Your task to perform on an android device: change text size in settings app Image 0: 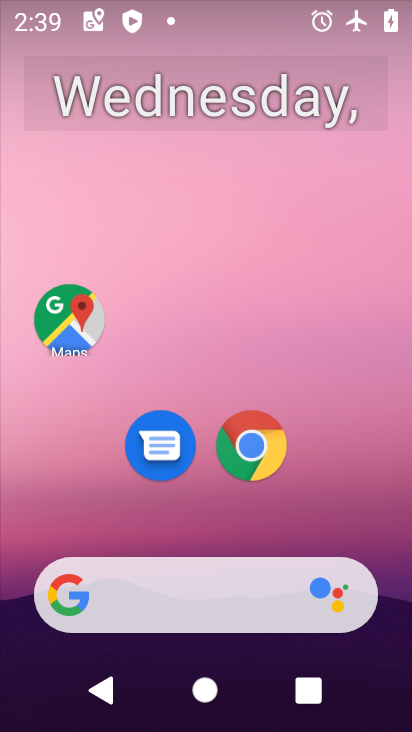
Step 0: drag from (202, 520) to (216, 212)
Your task to perform on an android device: change text size in settings app Image 1: 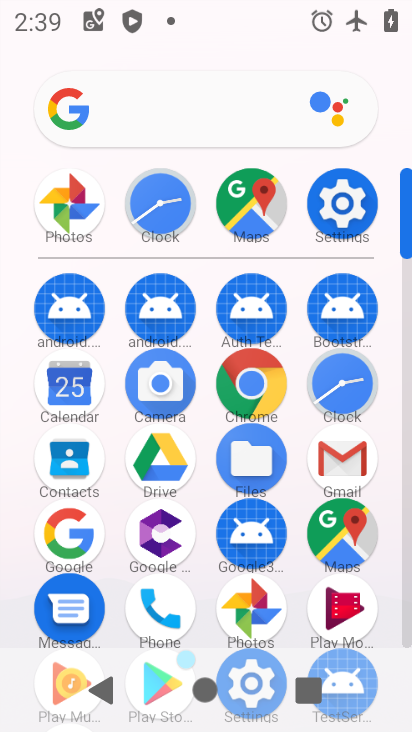
Step 1: click (325, 231)
Your task to perform on an android device: change text size in settings app Image 2: 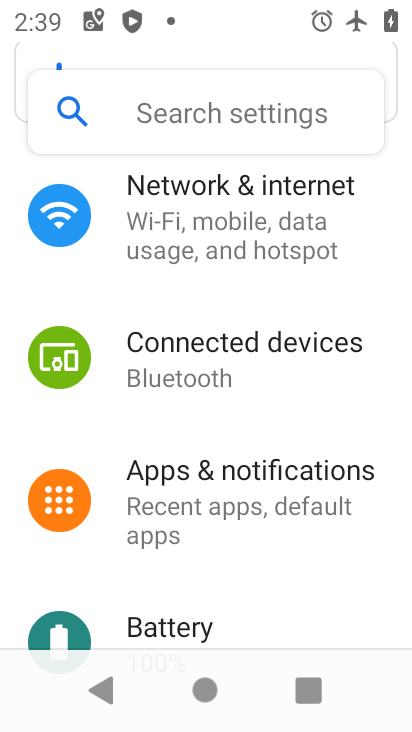
Step 2: drag from (186, 566) to (231, 266)
Your task to perform on an android device: change text size in settings app Image 3: 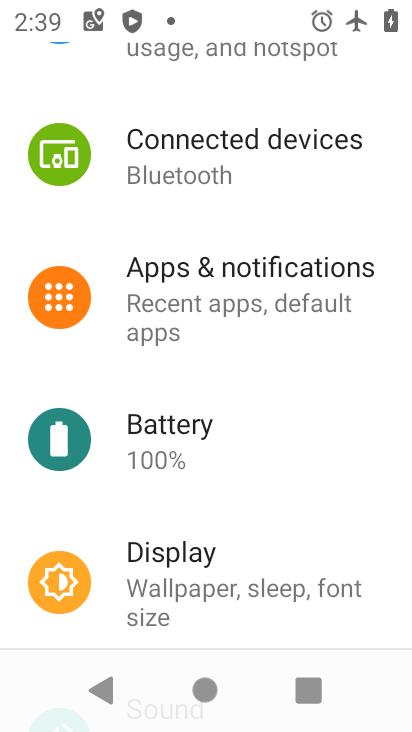
Step 3: click (203, 571)
Your task to perform on an android device: change text size in settings app Image 4: 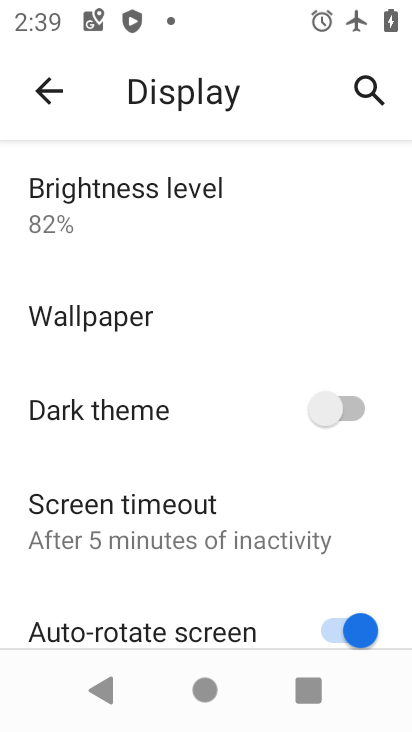
Step 4: drag from (174, 582) to (198, 285)
Your task to perform on an android device: change text size in settings app Image 5: 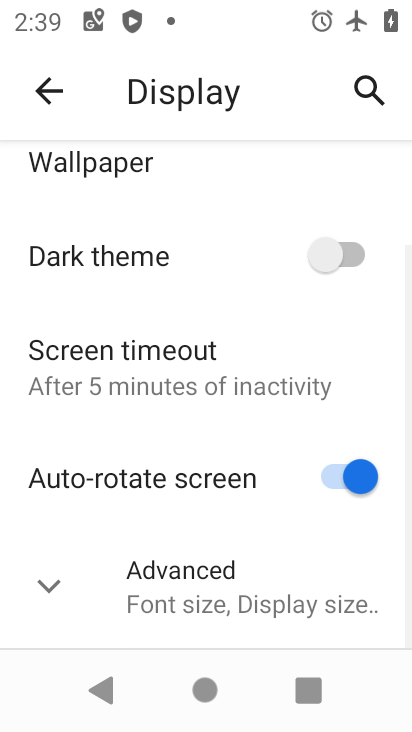
Step 5: click (164, 594)
Your task to perform on an android device: change text size in settings app Image 6: 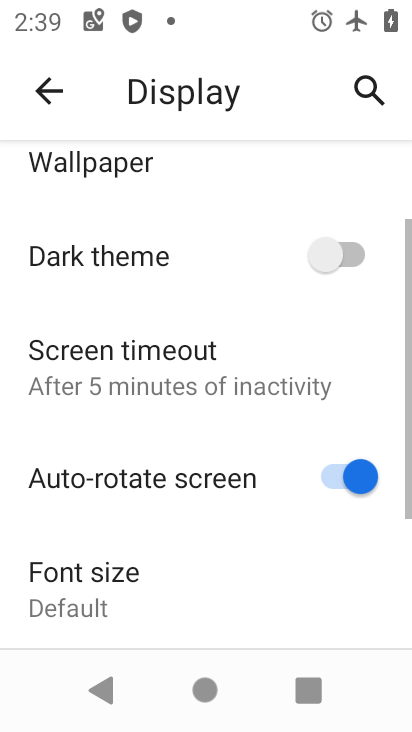
Step 6: drag from (164, 594) to (198, 396)
Your task to perform on an android device: change text size in settings app Image 7: 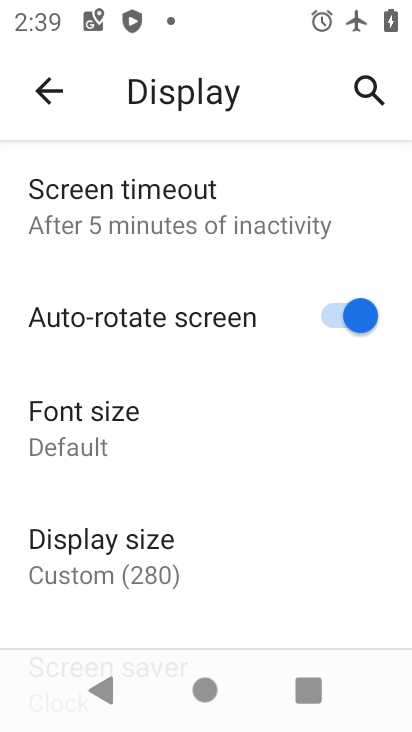
Step 7: click (161, 454)
Your task to perform on an android device: change text size in settings app Image 8: 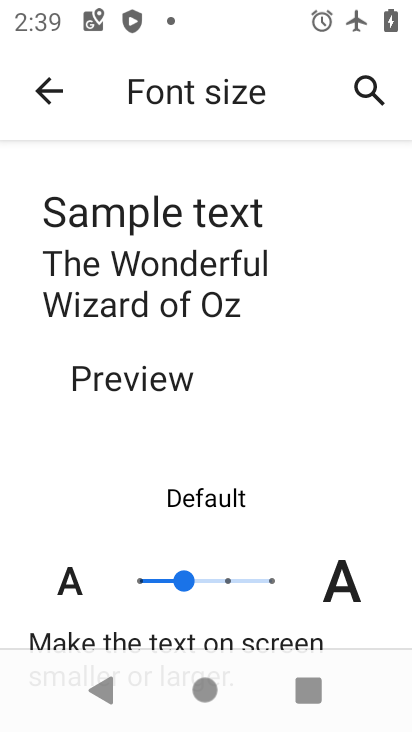
Step 8: click (139, 575)
Your task to perform on an android device: change text size in settings app Image 9: 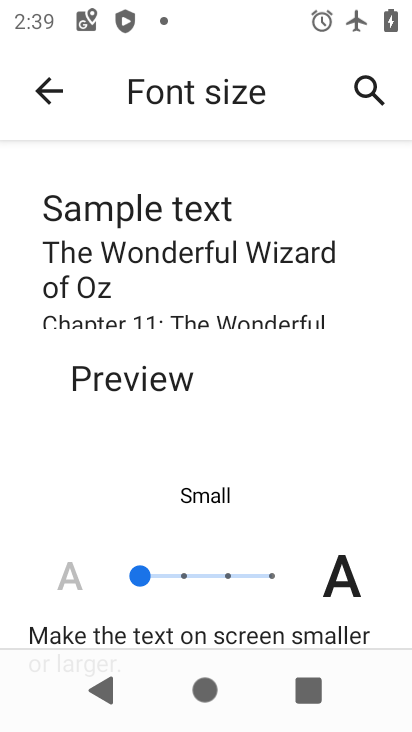
Step 9: task complete